Your task to perform on an android device: Open Google Maps and go to "Timeline" Image 0: 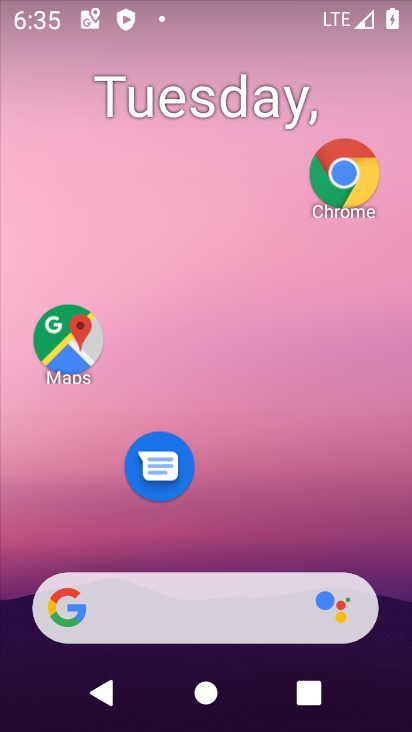
Step 0: press home button
Your task to perform on an android device: Open Google Maps and go to "Timeline" Image 1: 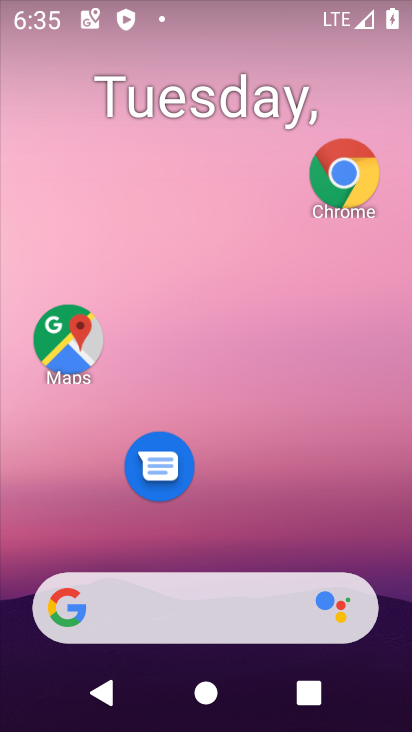
Step 1: click (78, 357)
Your task to perform on an android device: Open Google Maps and go to "Timeline" Image 2: 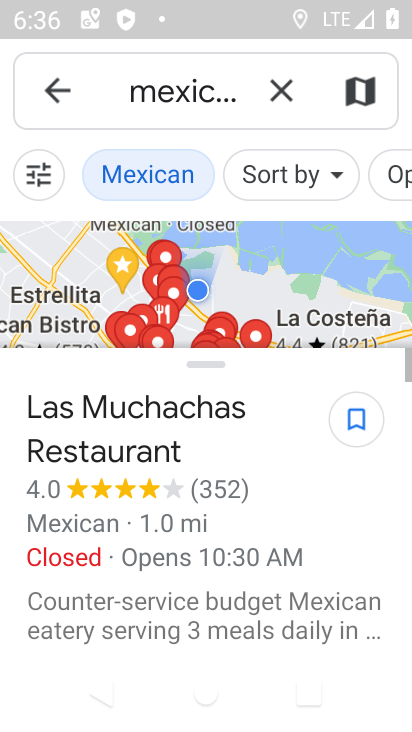
Step 2: click (276, 89)
Your task to perform on an android device: Open Google Maps and go to "Timeline" Image 3: 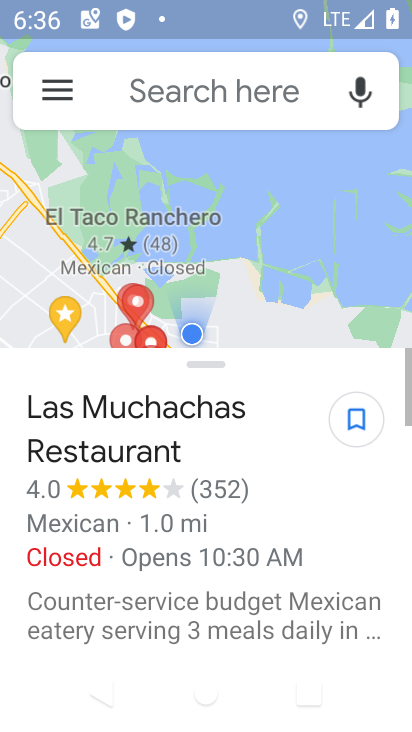
Step 3: click (53, 96)
Your task to perform on an android device: Open Google Maps and go to "Timeline" Image 4: 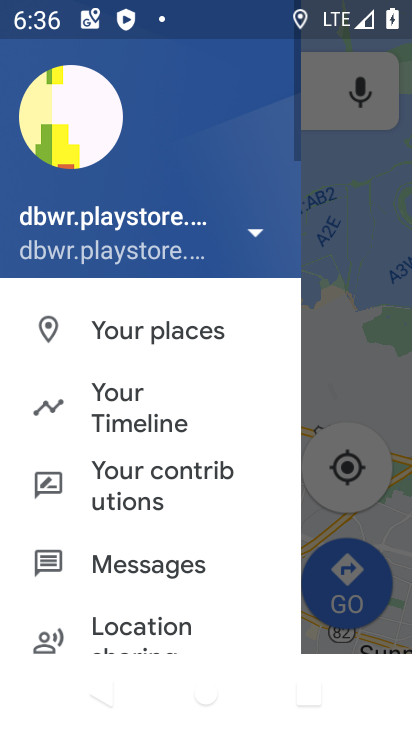
Step 4: click (53, 96)
Your task to perform on an android device: Open Google Maps and go to "Timeline" Image 5: 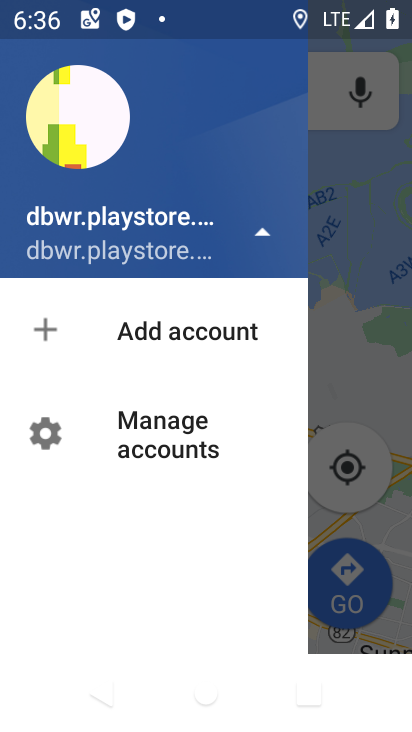
Step 5: click (66, 165)
Your task to perform on an android device: Open Google Maps and go to "Timeline" Image 6: 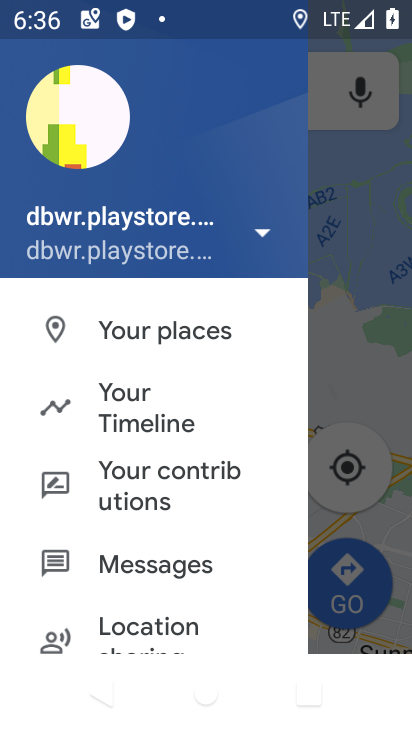
Step 6: click (167, 424)
Your task to perform on an android device: Open Google Maps and go to "Timeline" Image 7: 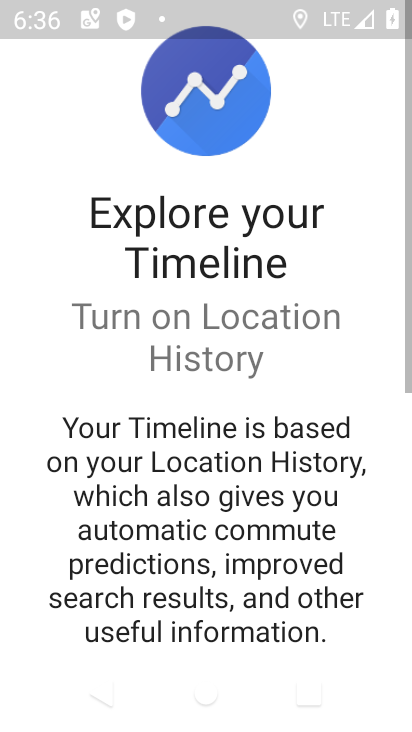
Step 7: drag from (265, 607) to (309, 10)
Your task to perform on an android device: Open Google Maps and go to "Timeline" Image 8: 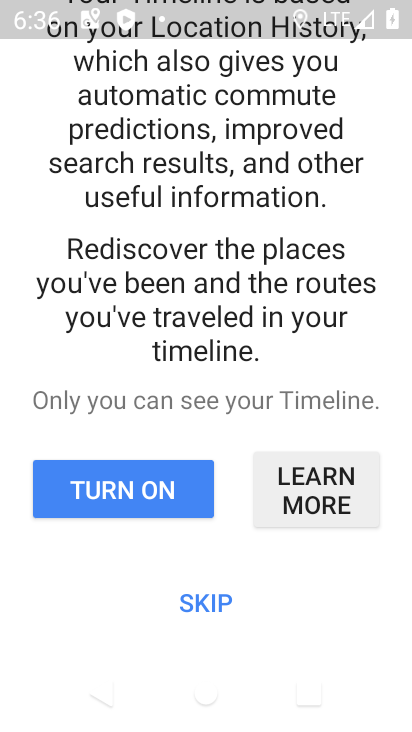
Step 8: click (208, 610)
Your task to perform on an android device: Open Google Maps and go to "Timeline" Image 9: 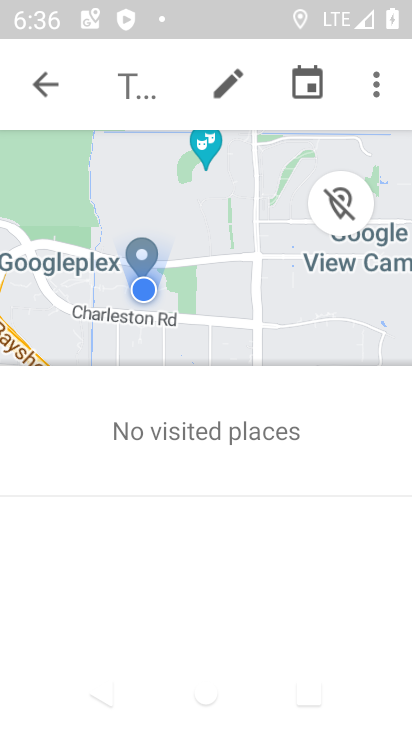
Step 9: task complete